Your task to perform on an android device: Go to Android settings Image 0: 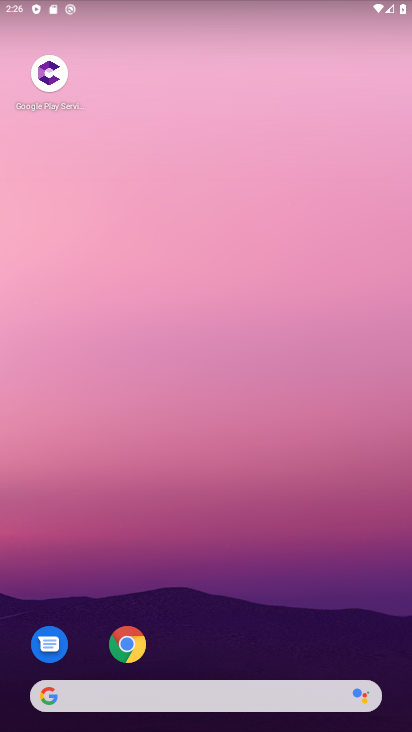
Step 0: drag from (172, 660) to (258, 262)
Your task to perform on an android device: Go to Android settings Image 1: 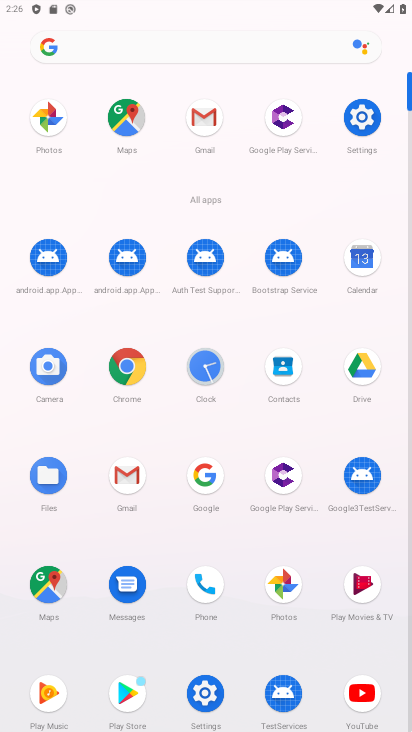
Step 1: click (199, 689)
Your task to perform on an android device: Go to Android settings Image 2: 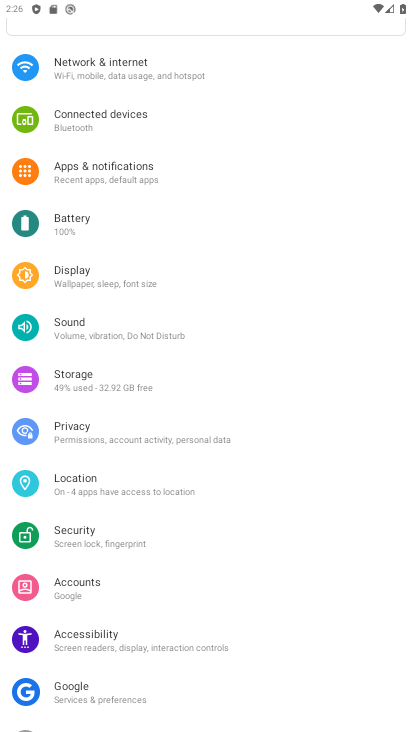
Step 2: task complete